Your task to perform on an android device: Open battery settings Image 0: 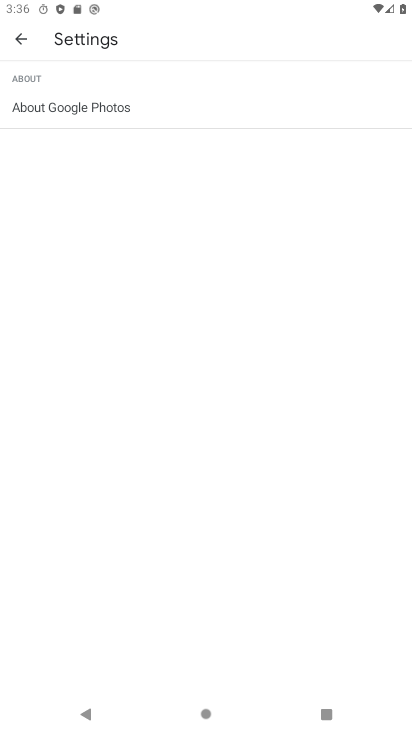
Step 0: press home button
Your task to perform on an android device: Open battery settings Image 1: 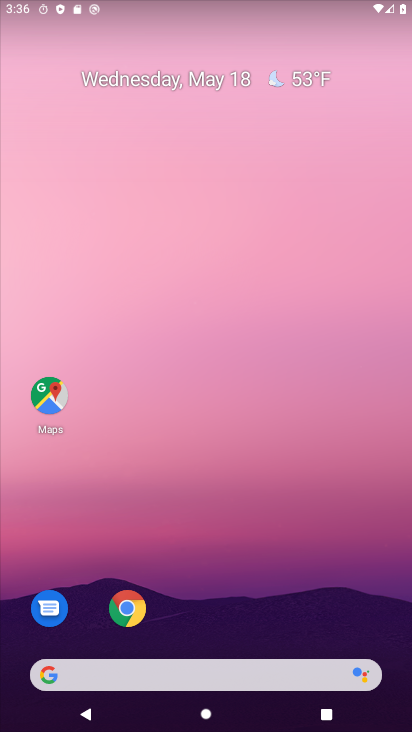
Step 1: drag from (213, 657) to (209, 45)
Your task to perform on an android device: Open battery settings Image 2: 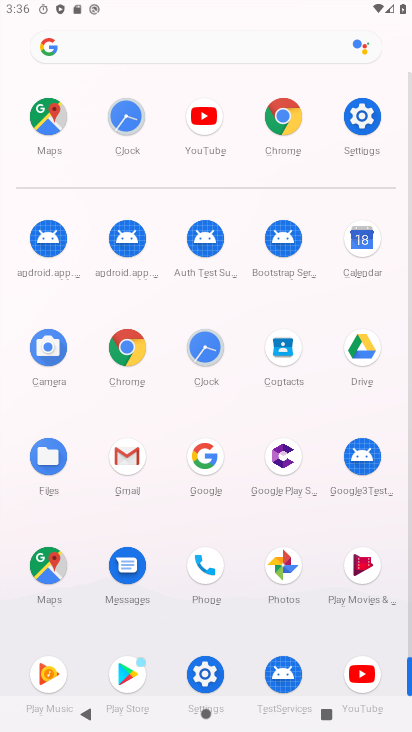
Step 2: click (366, 105)
Your task to perform on an android device: Open battery settings Image 3: 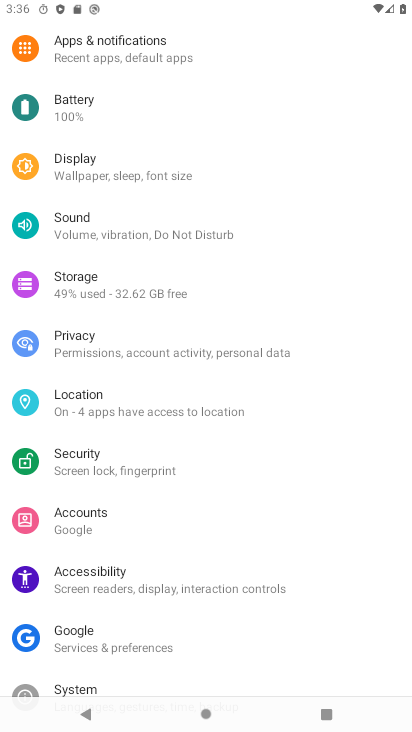
Step 3: click (142, 108)
Your task to perform on an android device: Open battery settings Image 4: 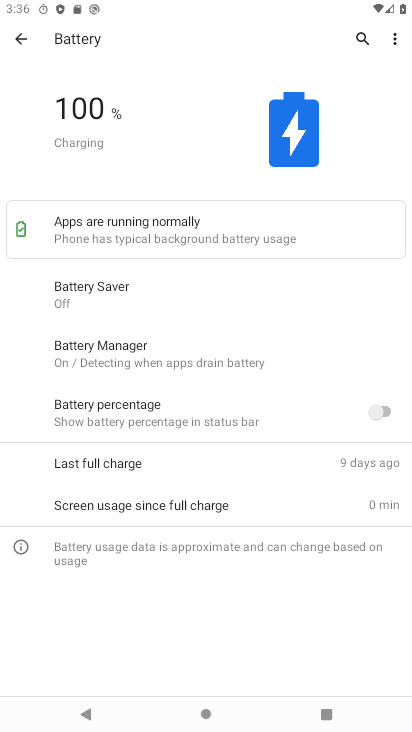
Step 4: task complete